Your task to perform on an android device: What's on my calendar today? Image 0: 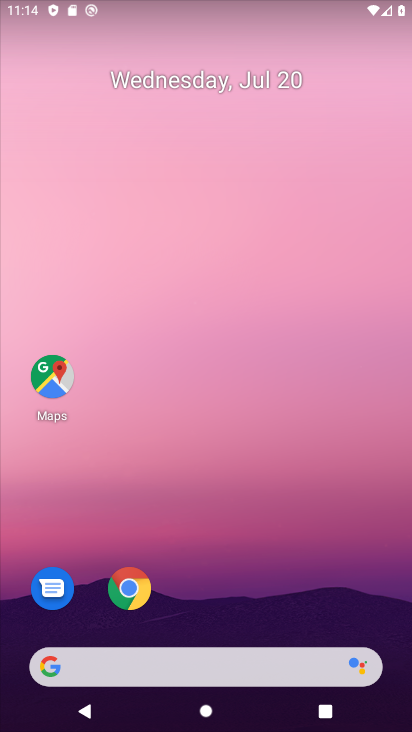
Step 0: press home button
Your task to perform on an android device: What's on my calendar today? Image 1: 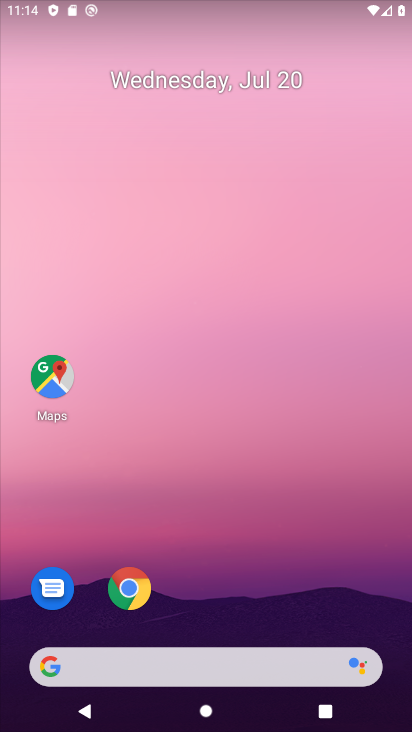
Step 1: drag from (293, 599) to (255, 93)
Your task to perform on an android device: What's on my calendar today? Image 2: 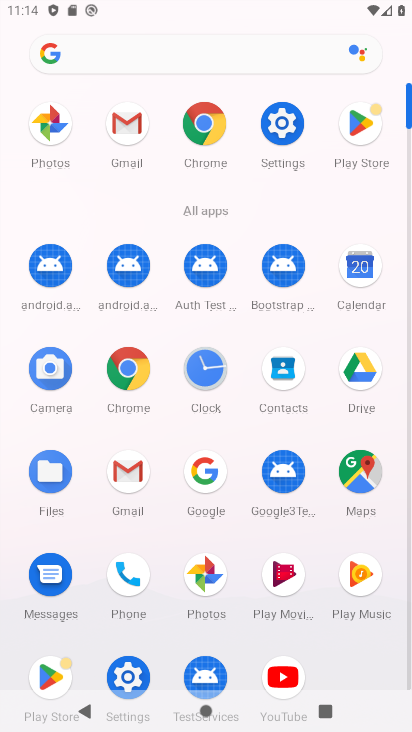
Step 2: click (354, 260)
Your task to perform on an android device: What's on my calendar today? Image 3: 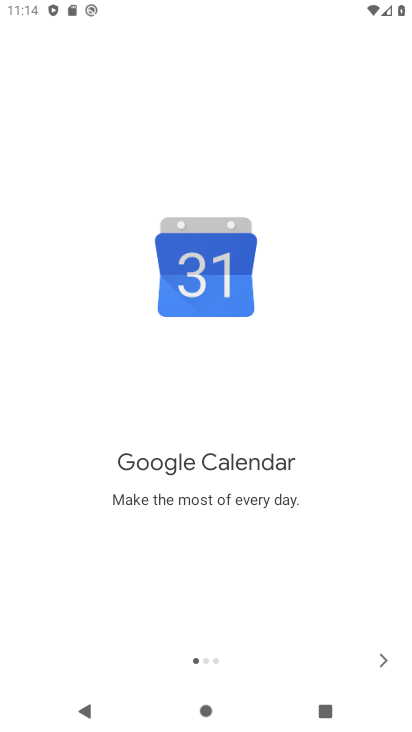
Step 3: click (382, 665)
Your task to perform on an android device: What's on my calendar today? Image 4: 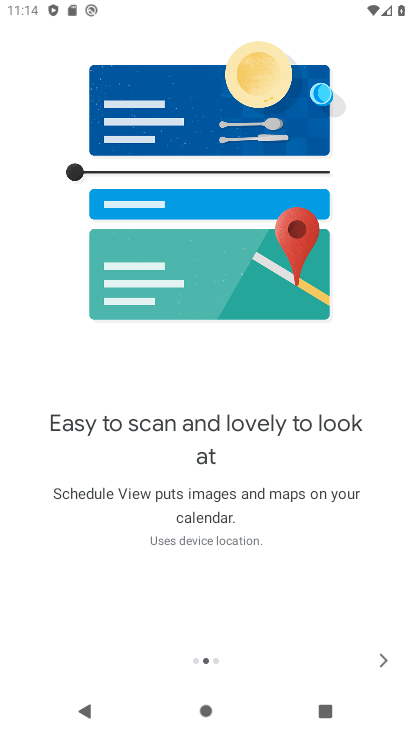
Step 4: click (382, 665)
Your task to perform on an android device: What's on my calendar today? Image 5: 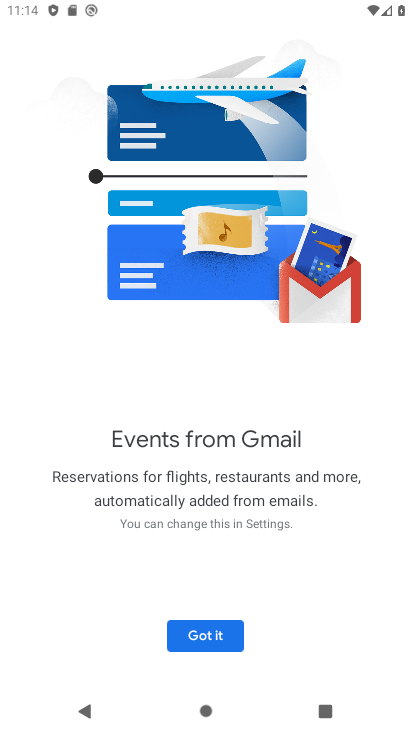
Step 5: click (224, 633)
Your task to perform on an android device: What's on my calendar today? Image 6: 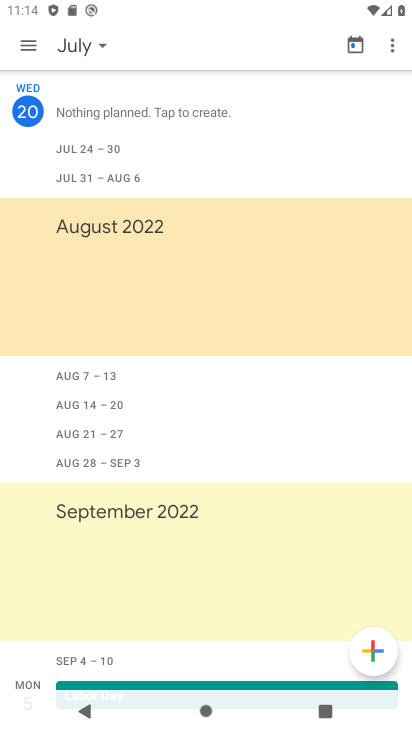
Step 6: click (28, 43)
Your task to perform on an android device: What's on my calendar today? Image 7: 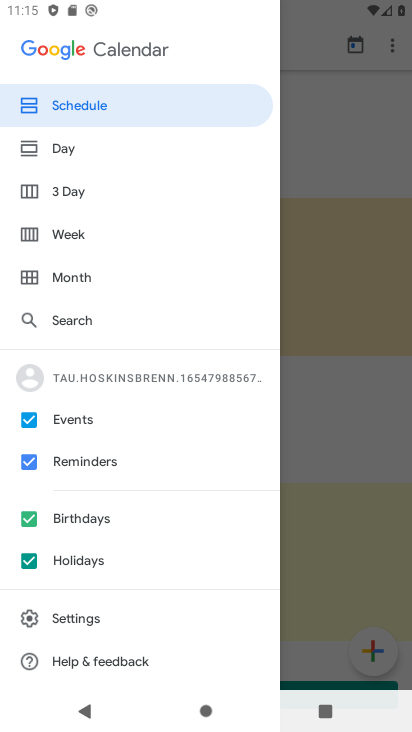
Step 7: drag from (133, 333) to (160, 152)
Your task to perform on an android device: What's on my calendar today? Image 8: 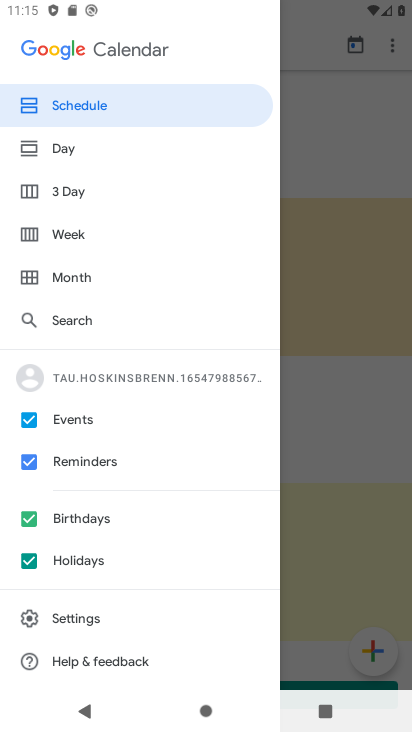
Step 8: click (70, 141)
Your task to perform on an android device: What's on my calendar today? Image 9: 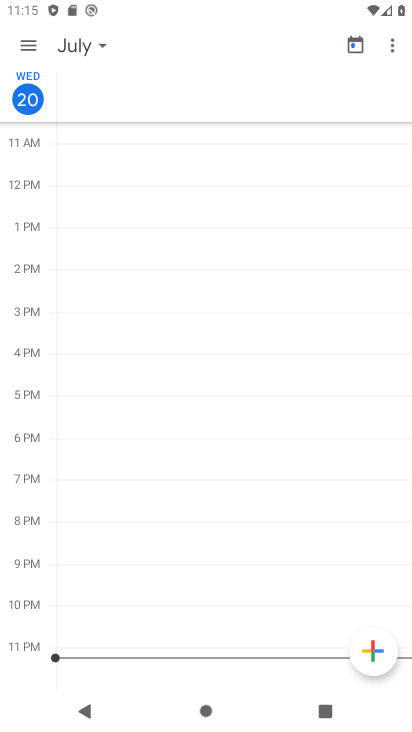
Step 9: task complete